Your task to perform on an android device: turn on priority inbox in the gmail app Image 0: 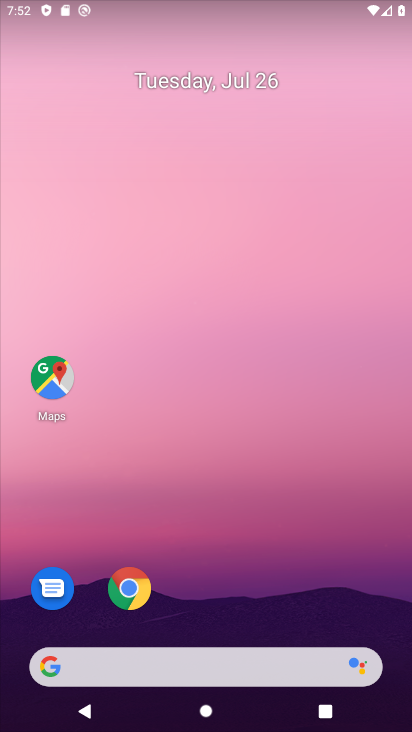
Step 0: drag from (284, 589) to (280, 103)
Your task to perform on an android device: turn on priority inbox in the gmail app Image 1: 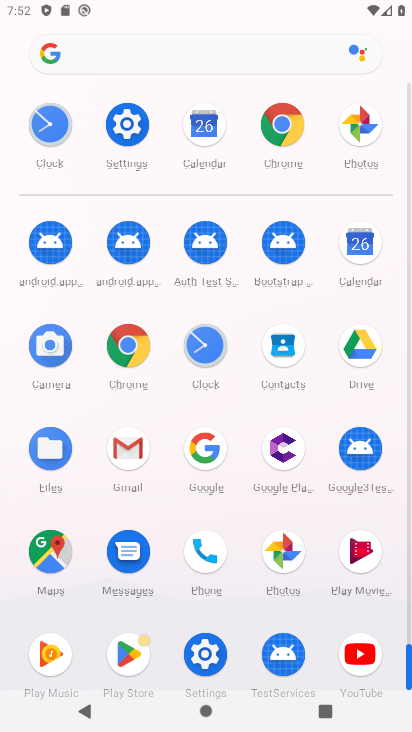
Step 1: click (129, 447)
Your task to perform on an android device: turn on priority inbox in the gmail app Image 2: 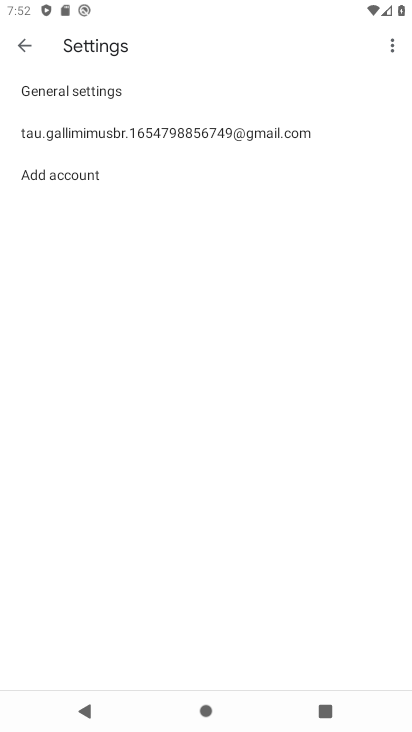
Step 2: click (146, 135)
Your task to perform on an android device: turn on priority inbox in the gmail app Image 3: 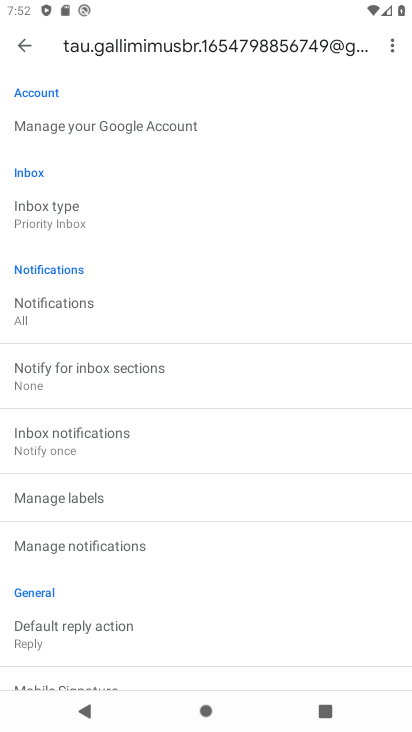
Step 3: click (70, 218)
Your task to perform on an android device: turn on priority inbox in the gmail app Image 4: 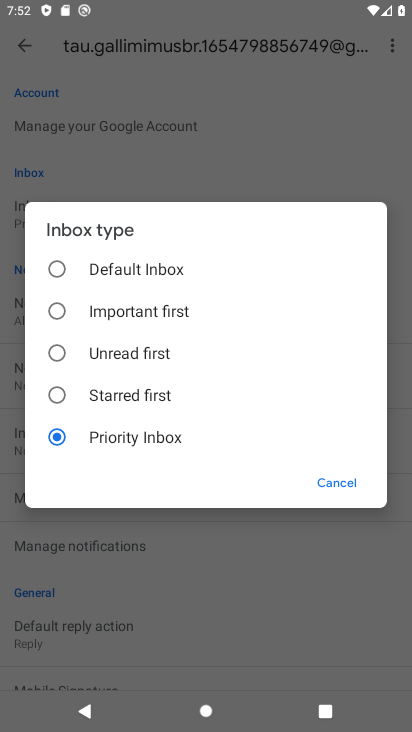
Step 4: task complete